Your task to perform on an android device: turn on sleep mode Image 0: 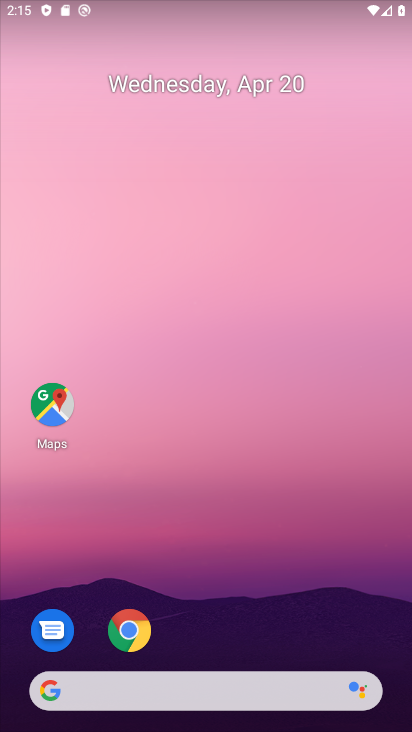
Step 0: drag from (198, 640) to (44, 177)
Your task to perform on an android device: turn on sleep mode Image 1: 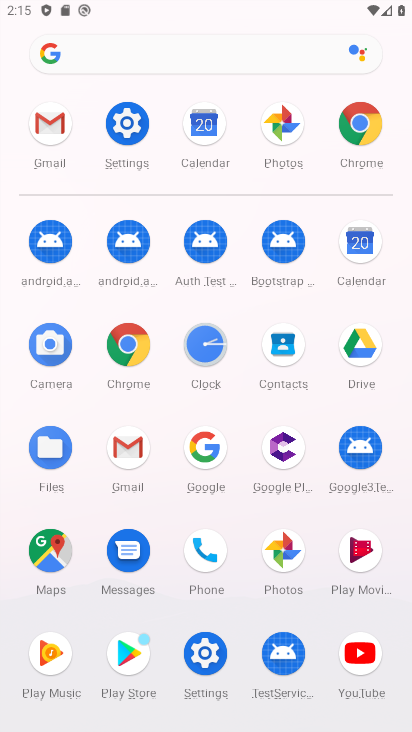
Step 1: click (198, 663)
Your task to perform on an android device: turn on sleep mode Image 2: 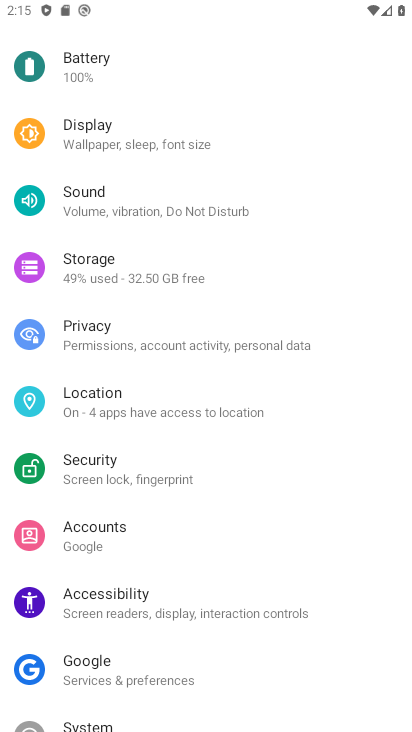
Step 2: click (101, 134)
Your task to perform on an android device: turn on sleep mode Image 3: 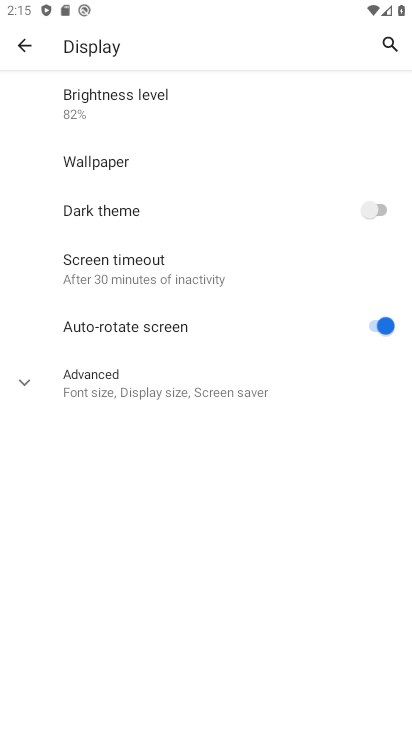
Step 3: click (21, 383)
Your task to perform on an android device: turn on sleep mode Image 4: 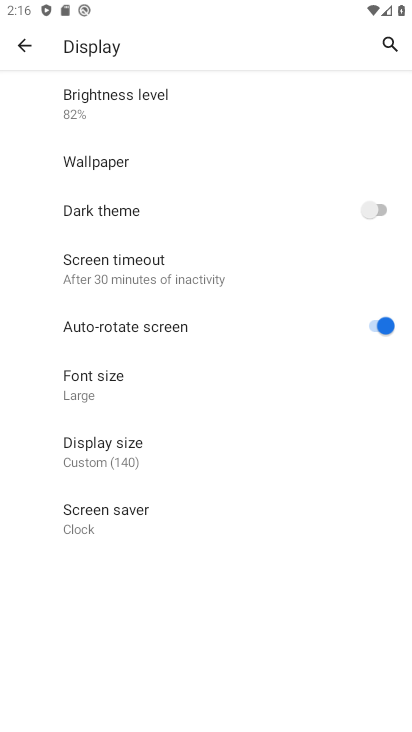
Step 4: task complete